Your task to perform on an android device: Go to display settings Image 0: 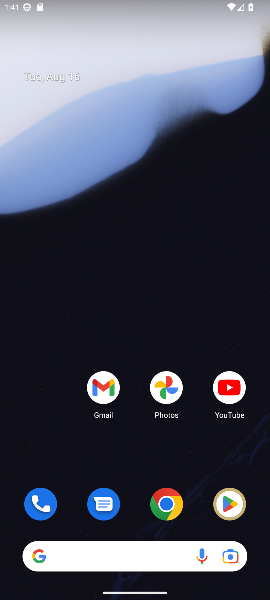
Step 0: drag from (137, 526) to (113, 98)
Your task to perform on an android device: Go to display settings Image 1: 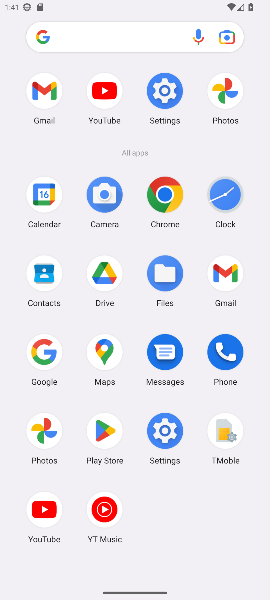
Step 1: click (165, 91)
Your task to perform on an android device: Go to display settings Image 2: 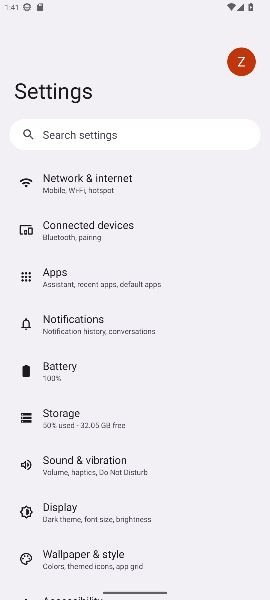
Step 2: click (58, 506)
Your task to perform on an android device: Go to display settings Image 3: 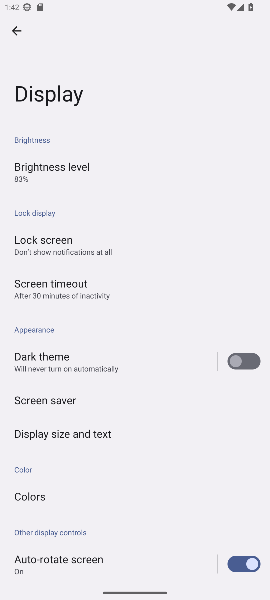
Step 3: task complete